Your task to perform on an android device: open app "Lyft - Rideshare, Bikes, Scooters & Transit" Image 0: 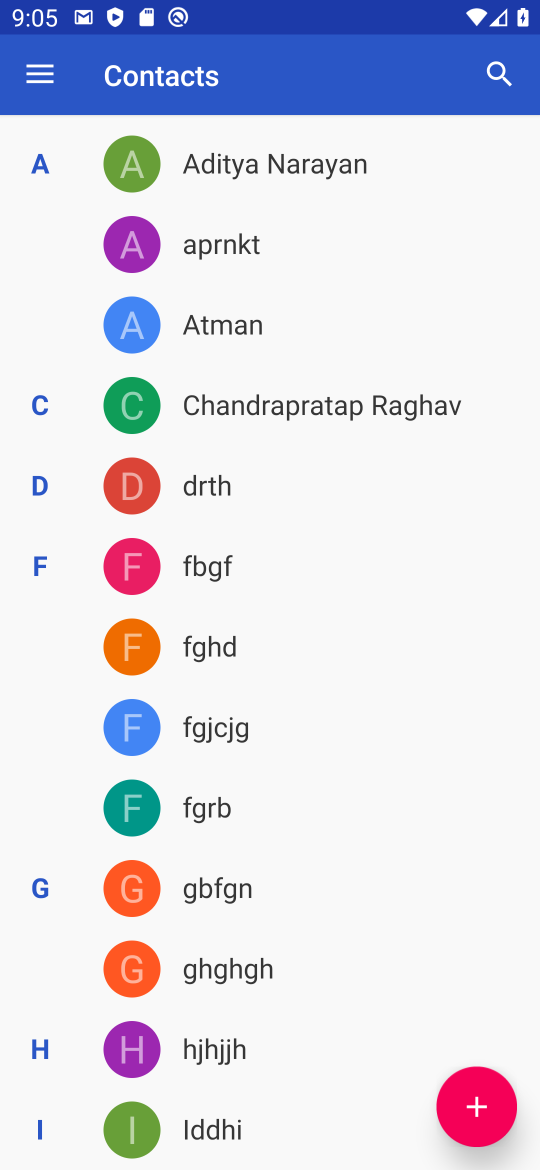
Step 0: press home button
Your task to perform on an android device: open app "Lyft - Rideshare, Bikes, Scooters & Transit" Image 1: 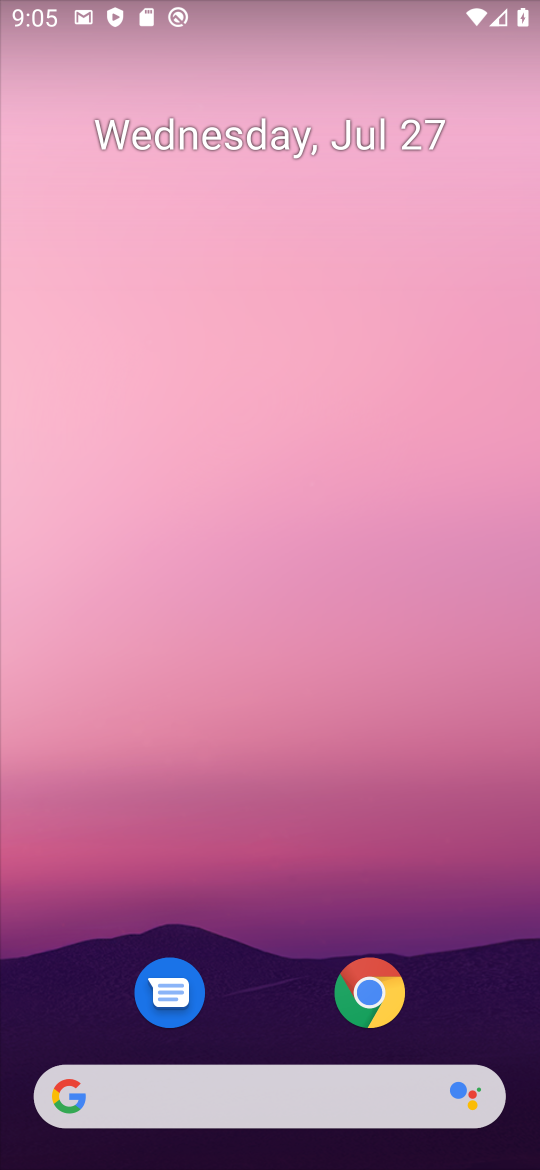
Step 1: drag from (247, 1137) to (253, 179)
Your task to perform on an android device: open app "Lyft - Rideshare, Bikes, Scooters & Transit" Image 2: 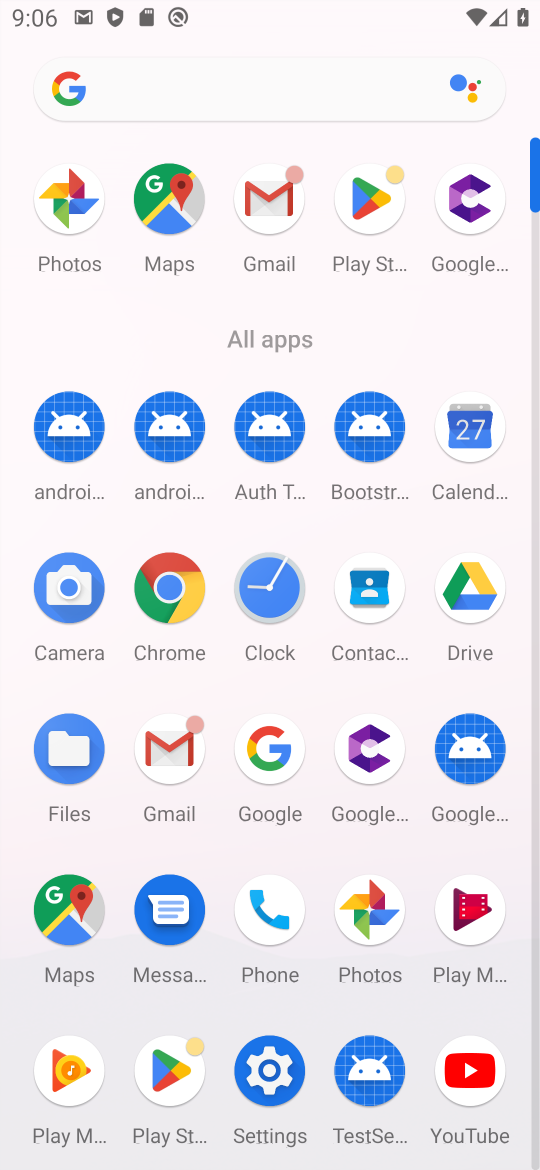
Step 2: click (160, 1061)
Your task to perform on an android device: open app "Lyft - Rideshare, Bikes, Scooters & Transit" Image 3: 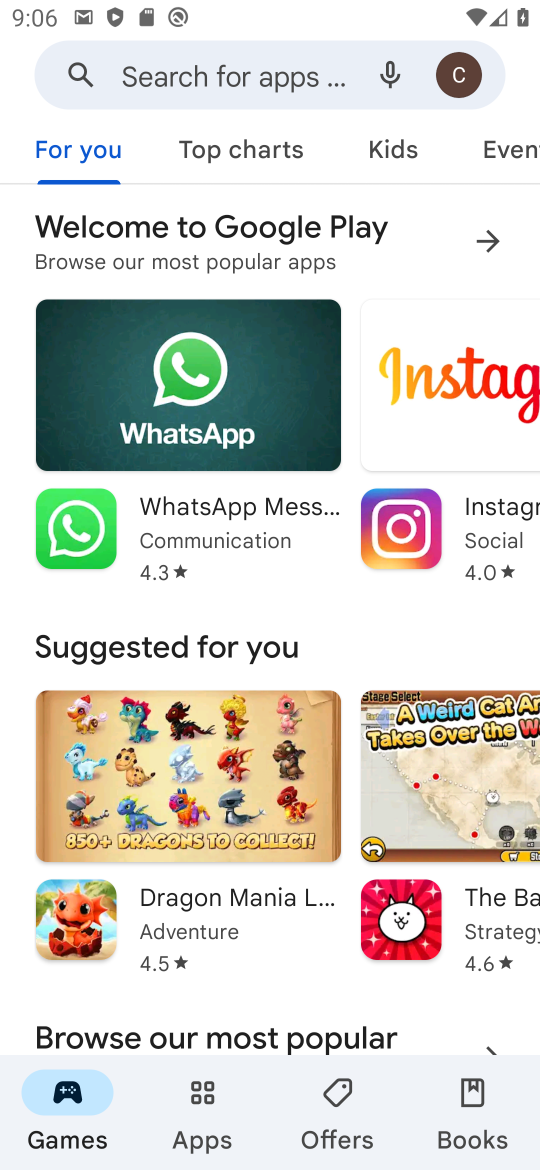
Step 3: click (266, 84)
Your task to perform on an android device: open app "Lyft - Rideshare, Bikes, Scooters & Transit" Image 4: 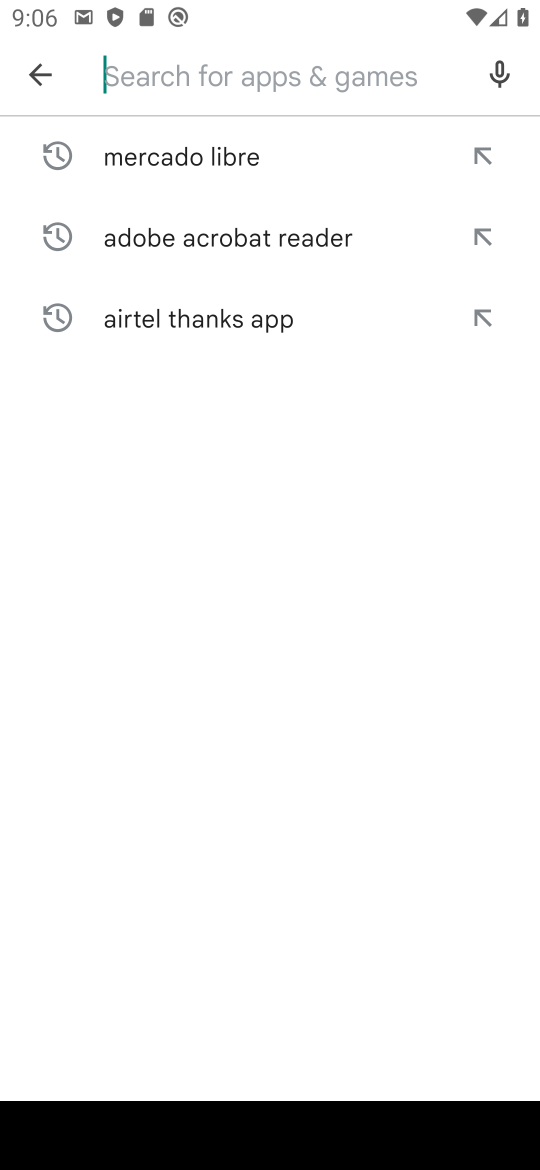
Step 4: type "Lyft_"
Your task to perform on an android device: open app "Lyft - Rideshare, Bikes, Scooters & Transit" Image 5: 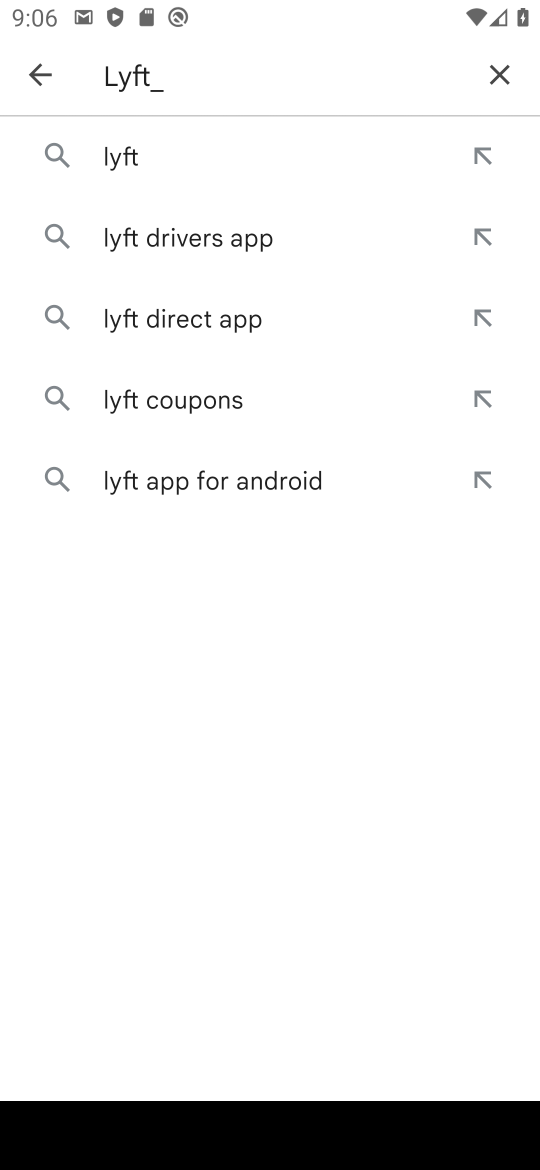
Step 5: click (491, 76)
Your task to perform on an android device: open app "Lyft - Rideshare, Bikes, Scooters & Transit" Image 6: 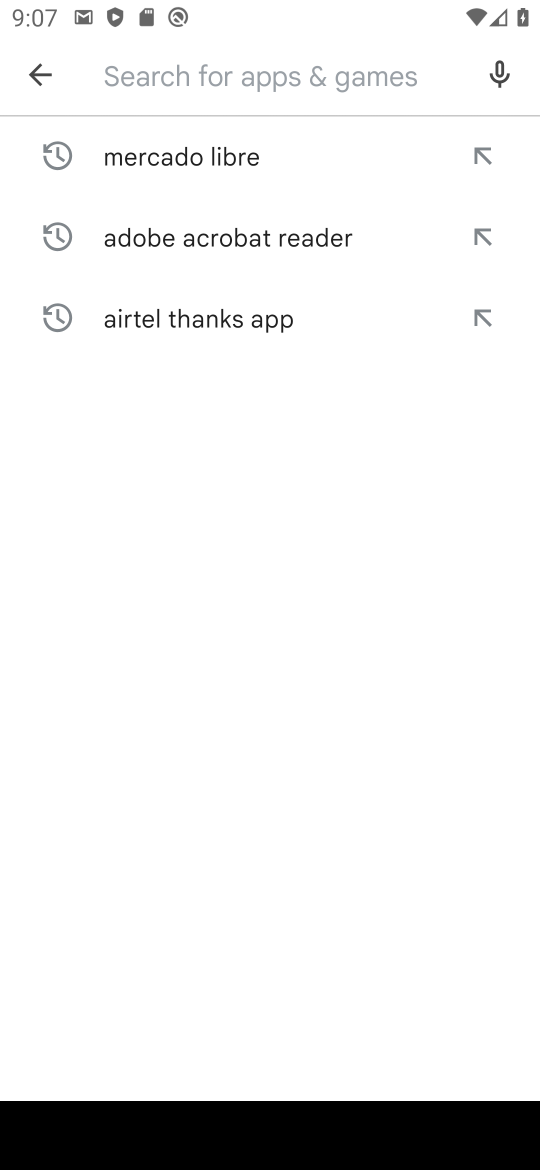
Step 6: type "Lyft - Rideshare, Bikes, Scooters & Transit"
Your task to perform on an android device: open app "Lyft - Rideshare, Bikes, Scooters & Transit" Image 7: 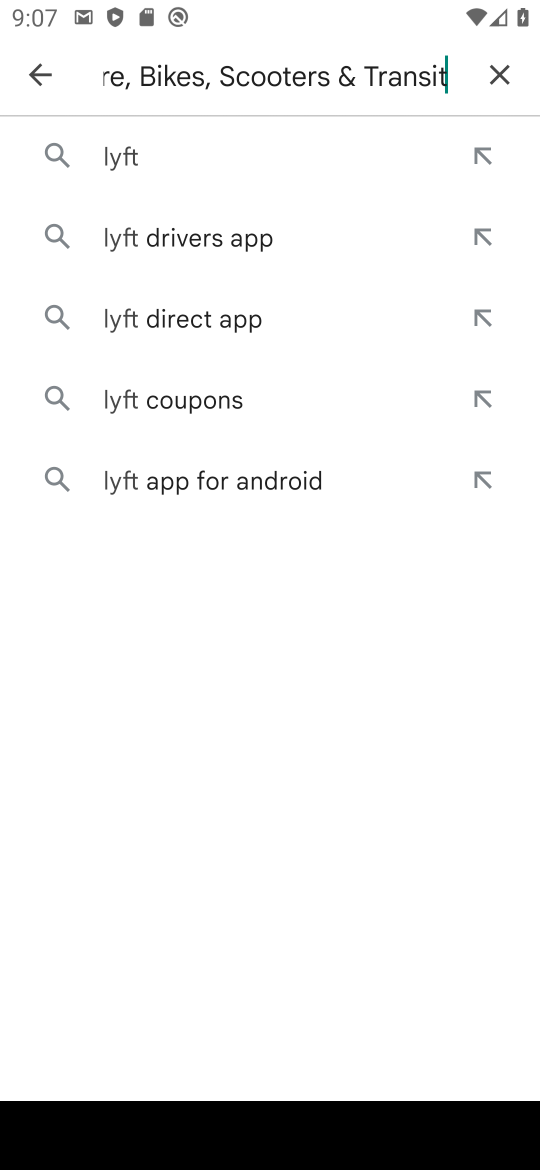
Step 7: type ""
Your task to perform on an android device: open app "Lyft - Rideshare, Bikes, Scooters & Transit" Image 8: 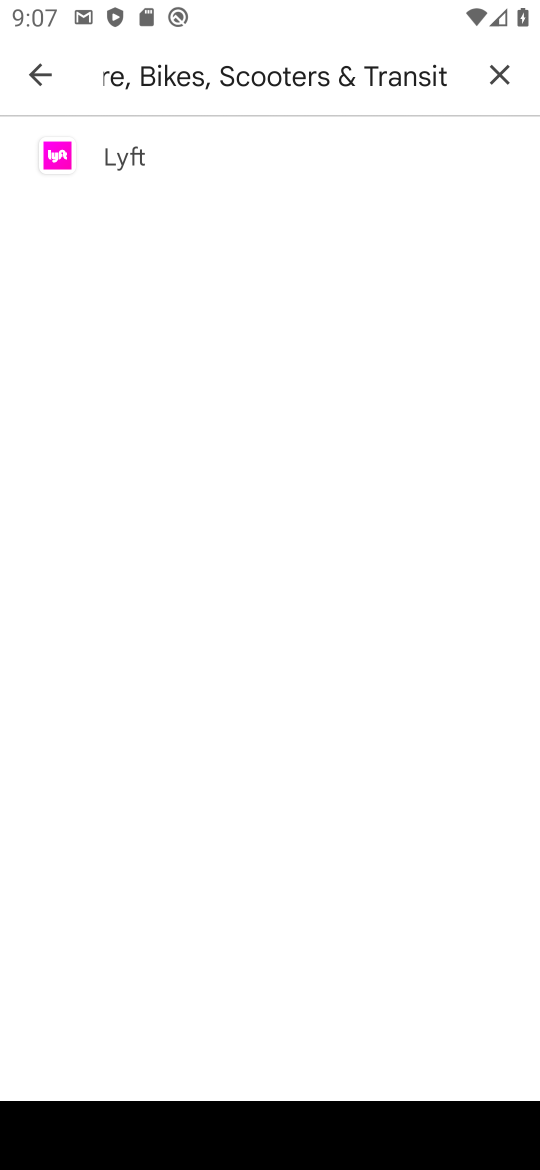
Step 8: click (111, 152)
Your task to perform on an android device: open app "Lyft - Rideshare, Bikes, Scooters & Transit" Image 9: 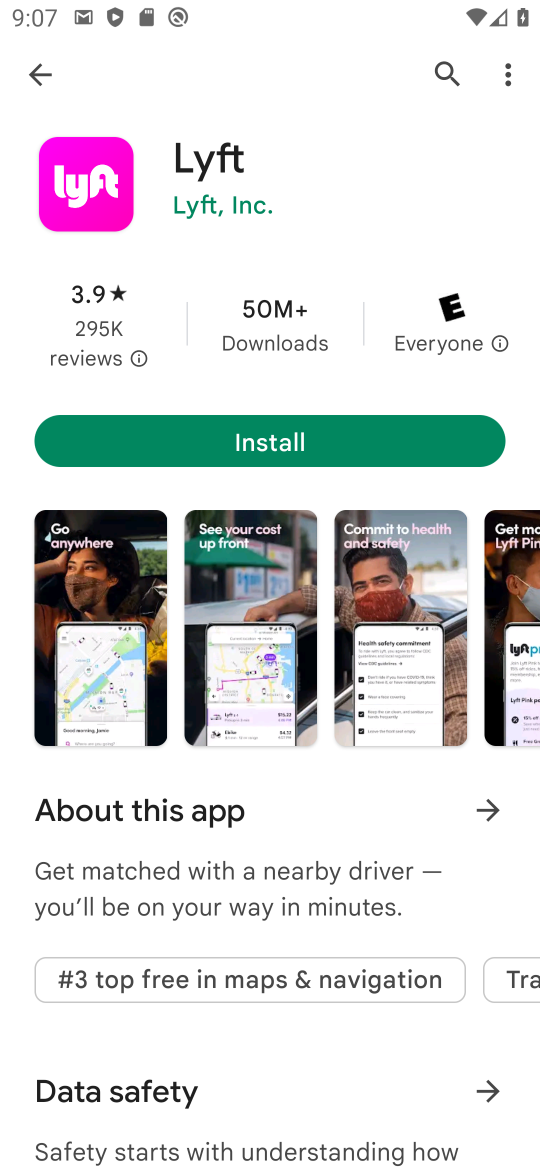
Step 9: task complete